Your task to perform on an android device: Open eBay Image 0: 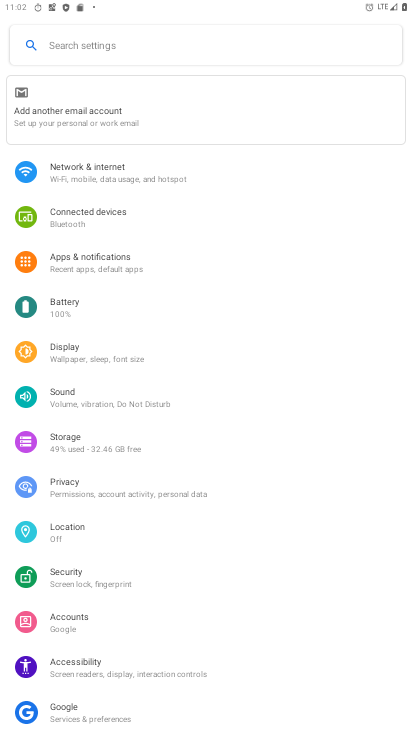
Step 0: press home button
Your task to perform on an android device: Open eBay Image 1: 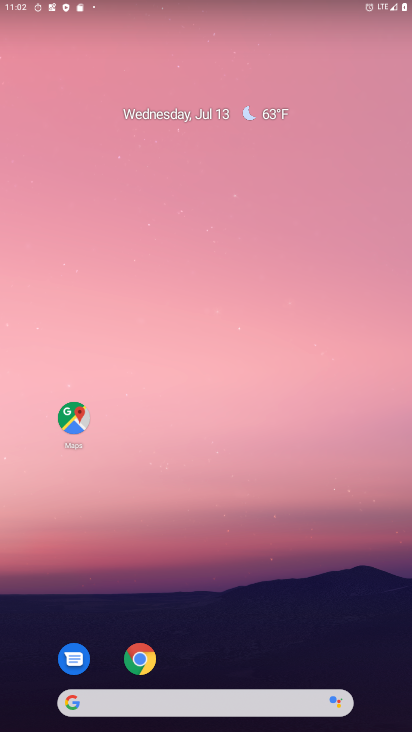
Step 1: drag from (273, 618) to (156, 105)
Your task to perform on an android device: Open eBay Image 2: 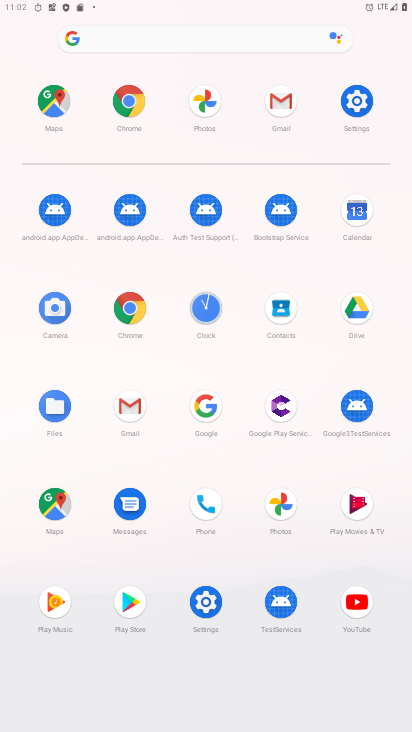
Step 2: click (125, 101)
Your task to perform on an android device: Open eBay Image 3: 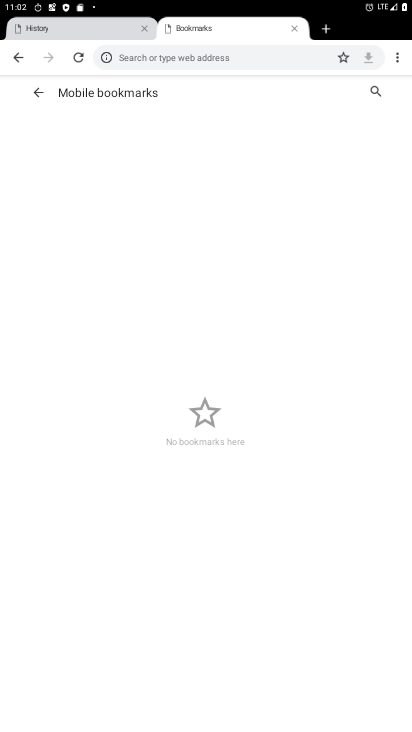
Step 3: click (156, 61)
Your task to perform on an android device: Open eBay Image 4: 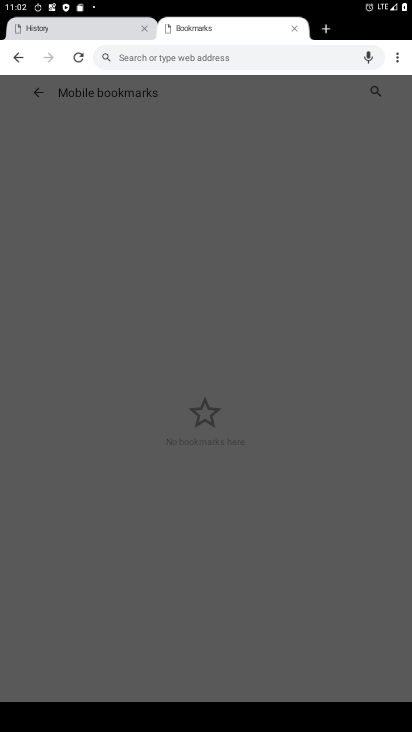
Step 4: type "ebay"
Your task to perform on an android device: Open eBay Image 5: 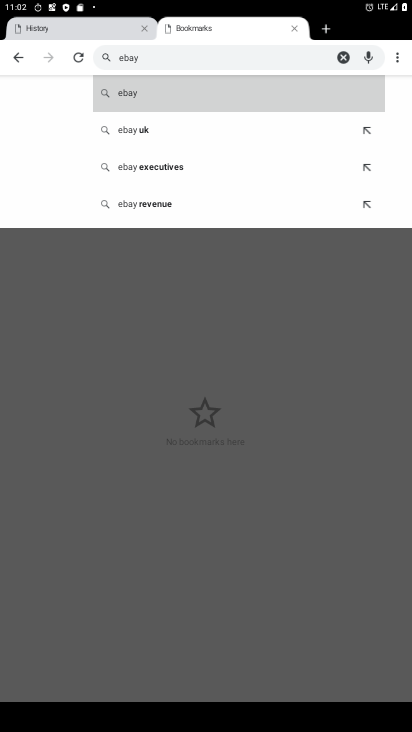
Step 5: click (137, 94)
Your task to perform on an android device: Open eBay Image 6: 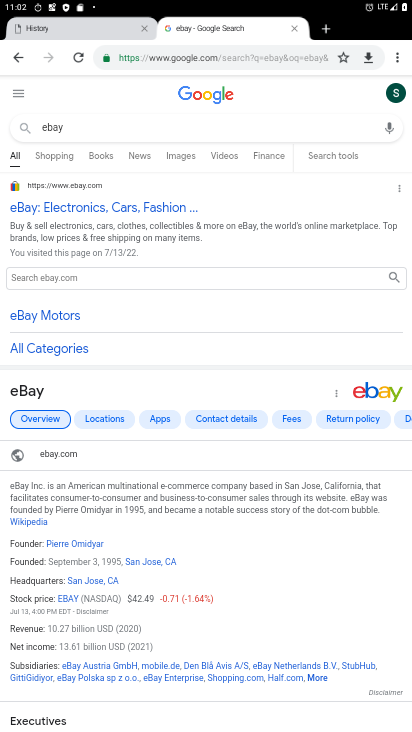
Step 6: click (69, 207)
Your task to perform on an android device: Open eBay Image 7: 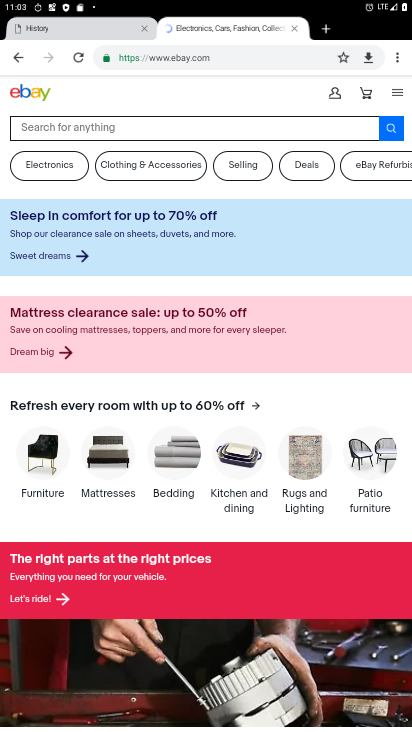
Step 7: task complete